Your task to perform on an android device: turn on data saver in the chrome app Image 0: 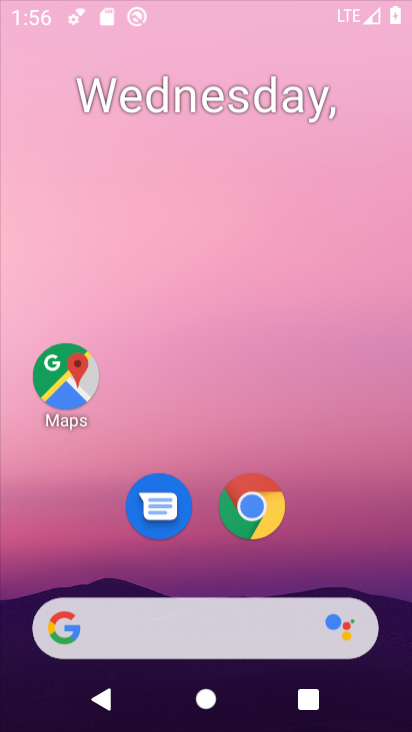
Step 0: click (201, 186)
Your task to perform on an android device: turn on data saver in the chrome app Image 1: 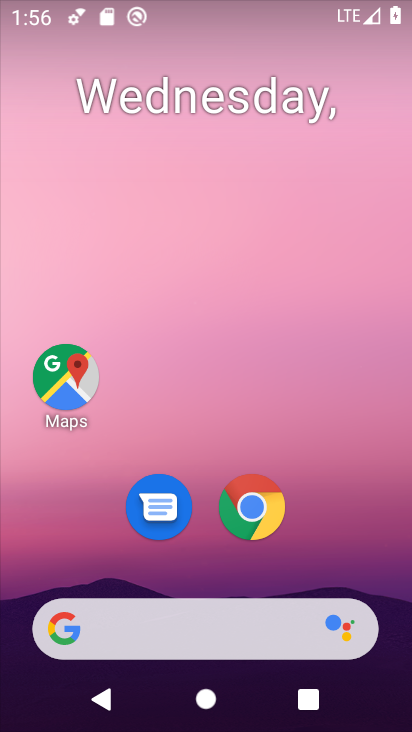
Step 1: click (248, 511)
Your task to perform on an android device: turn on data saver in the chrome app Image 2: 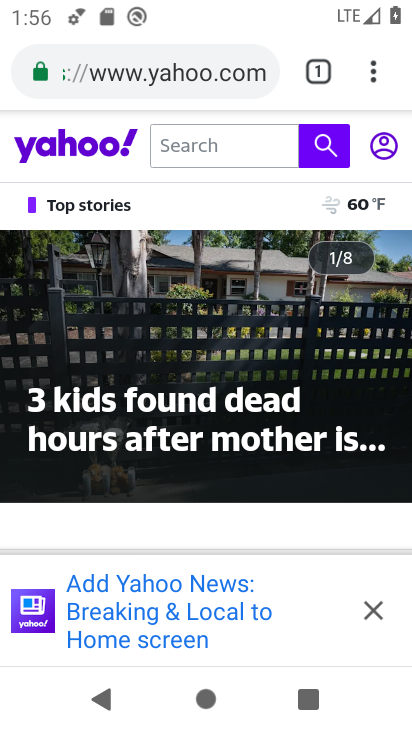
Step 2: click (368, 55)
Your task to perform on an android device: turn on data saver in the chrome app Image 3: 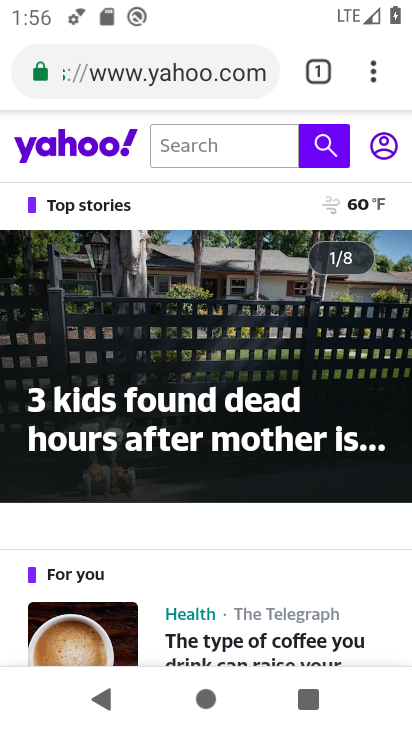
Step 3: click (357, 75)
Your task to perform on an android device: turn on data saver in the chrome app Image 4: 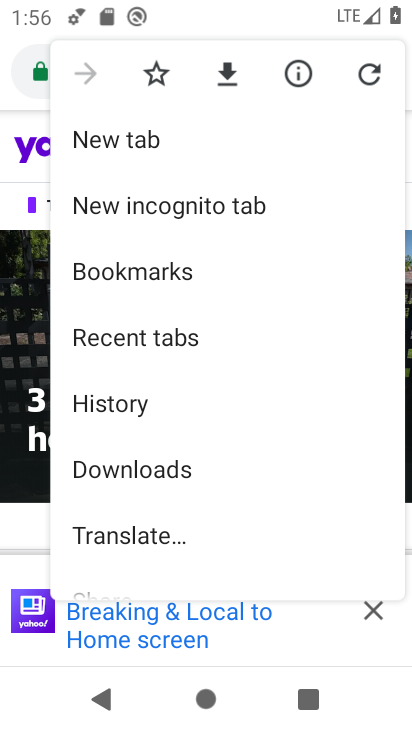
Step 4: drag from (185, 508) to (249, 225)
Your task to perform on an android device: turn on data saver in the chrome app Image 5: 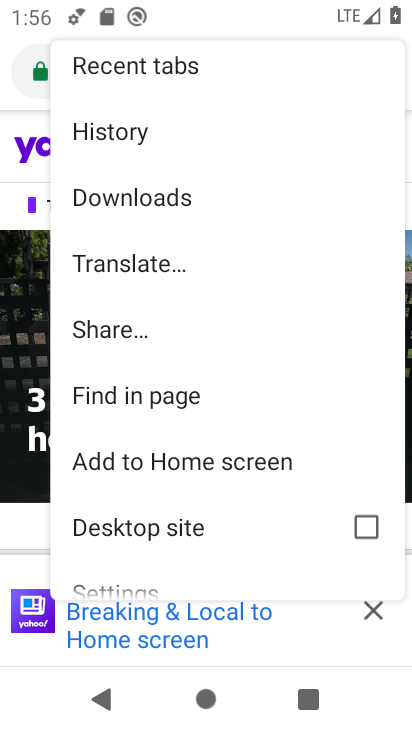
Step 5: drag from (188, 503) to (195, 224)
Your task to perform on an android device: turn on data saver in the chrome app Image 6: 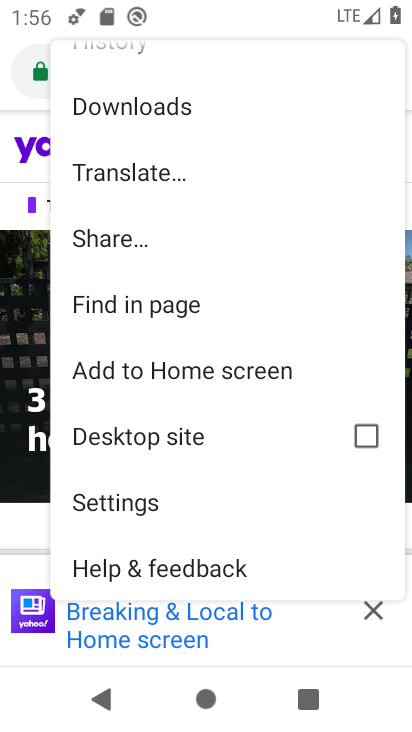
Step 6: click (165, 500)
Your task to perform on an android device: turn on data saver in the chrome app Image 7: 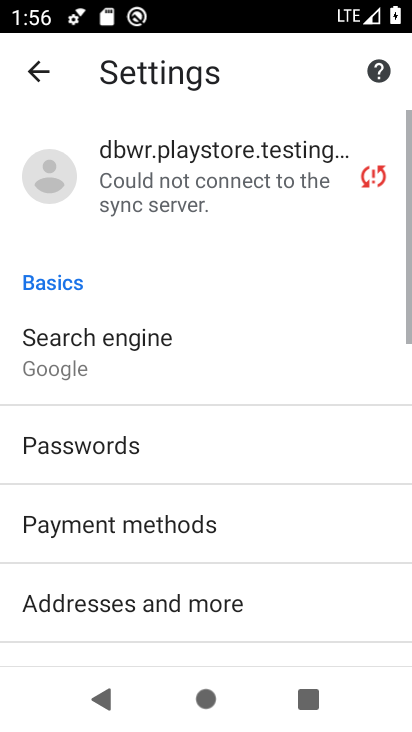
Step 7: drag from (182, 555) to (186, 281)
Your task to perform on an android device: turn on data saver in the chrome app Image 8: 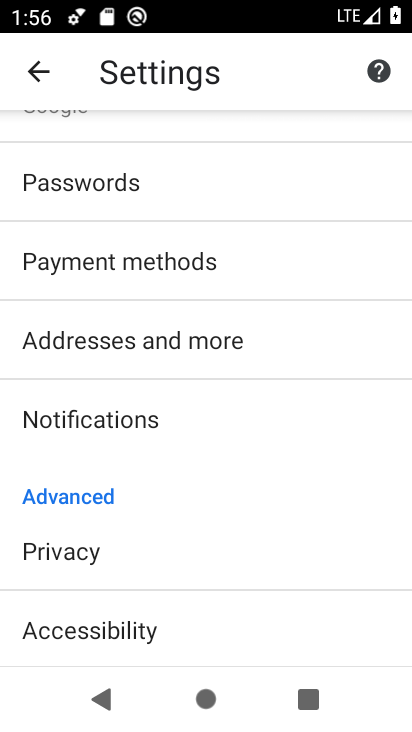
Step 8: drag from (177, 567) to (164, 308)
Your task to perform on an android device: turn on data saver in the chrome app Image 9: 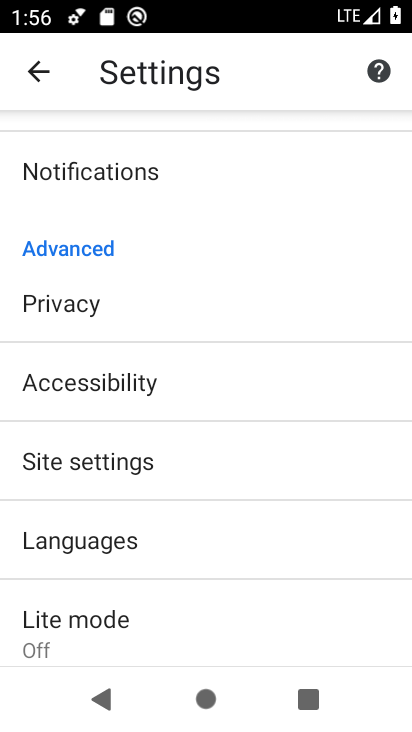
Step 9: click (121, 608)
Your task to perform on an android device: turn on data saver in the chrome app Image 10: 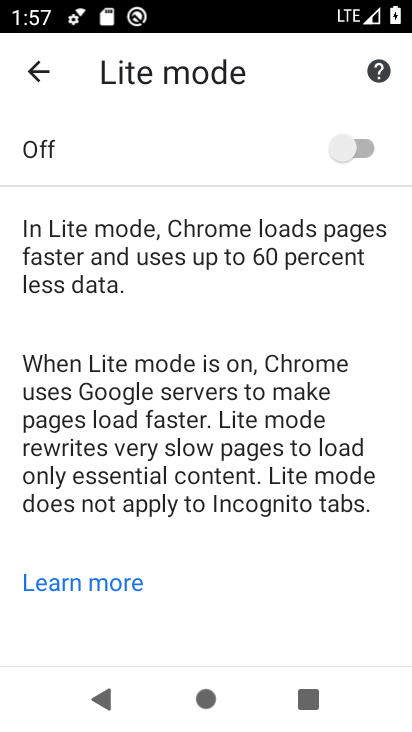
Step 10: click (343, 136)
Your task to perform on an android device: turn on data saver in the chrome app Image 11: 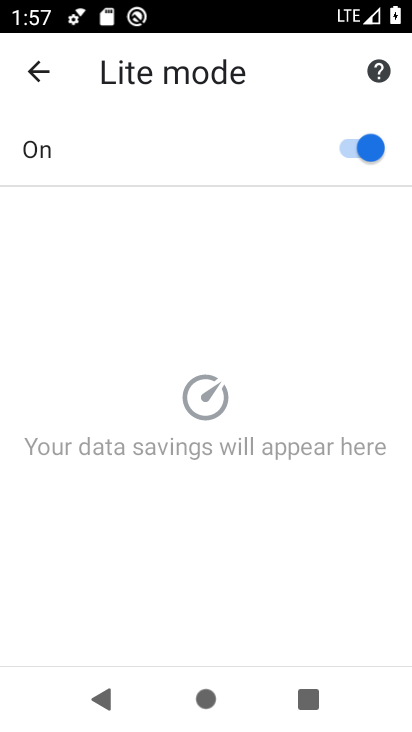
Step 11: task complete